Your task to perform on an android device: Search for logitech g910 on costco.com, select the first entry, add it to the cart, then select checkout. Image 0: 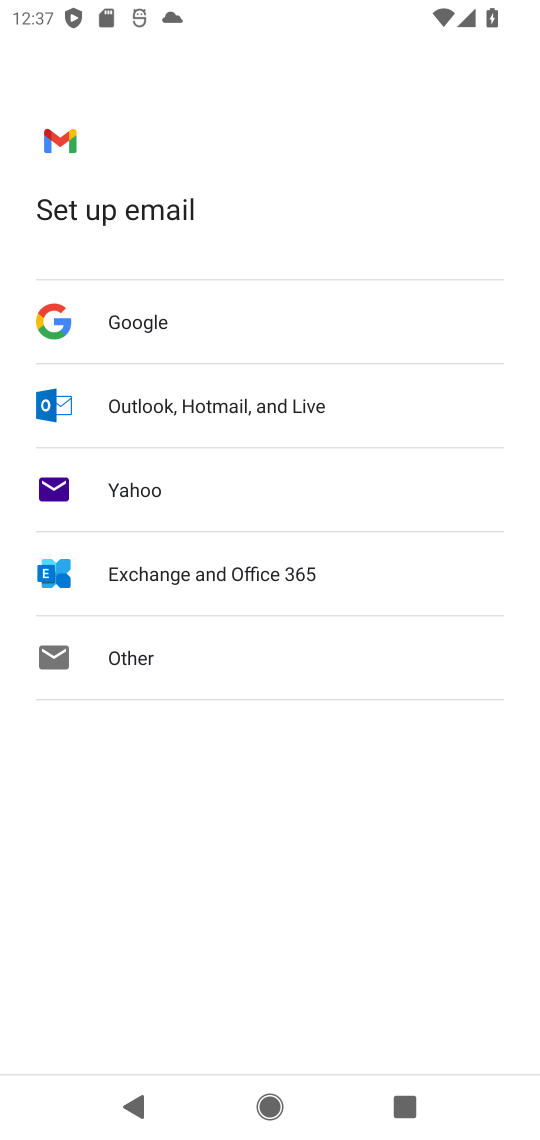
Step 0: press home button
Your task to perform on an android device: Search for logitech g910 on costco.com, select the first entry, add it to the cart, then select checkout. Image 1: 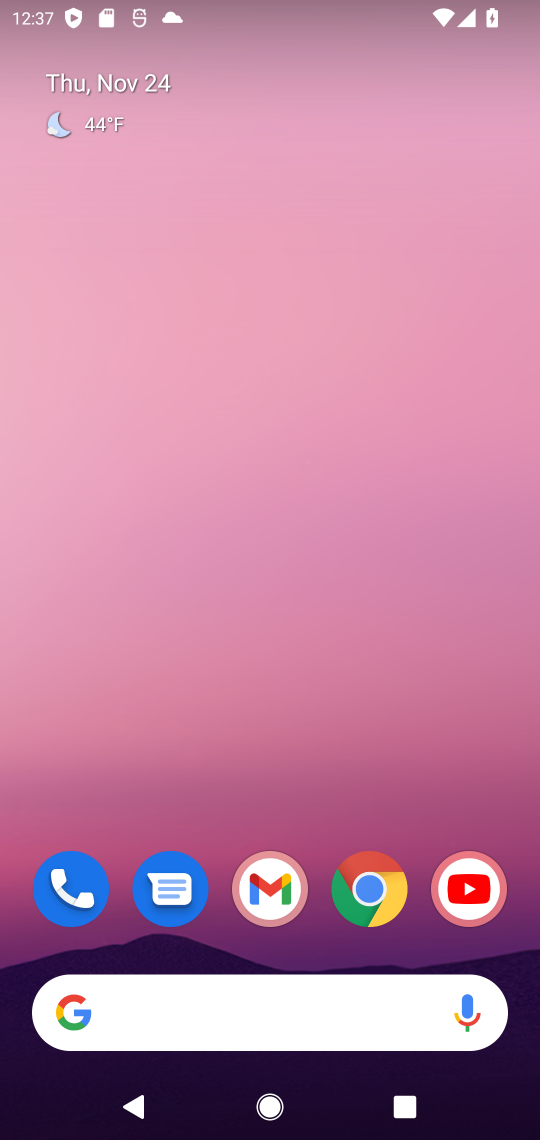
Step 1: click (377, 888)
Your task to perform on an android device: Search for logitech g910 on costco.com, select the first entry, add it to the cart, then select checkout. Image 2: 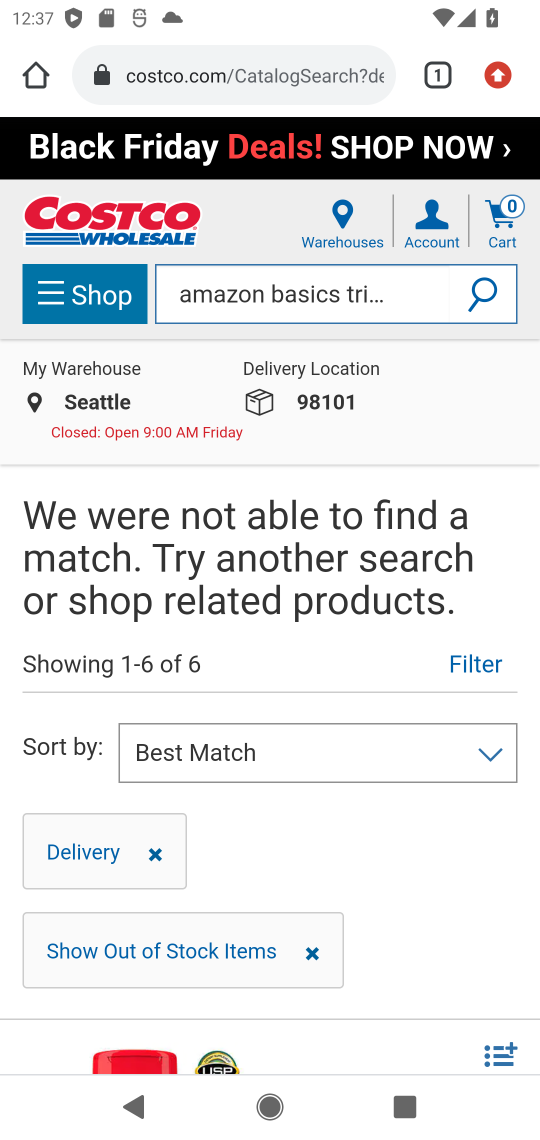
Step 2: click (359, 293)
Your task to perform on an android device: Search for logitech g910 on costco.com, select the first entry, add it to the cart, then select checkout. Image 3: 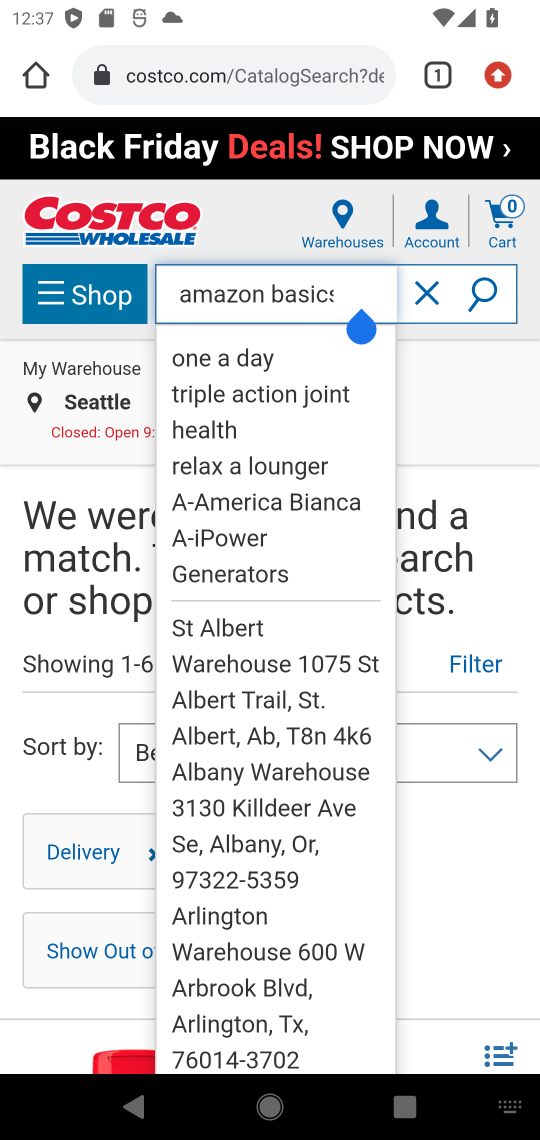
Step 3: click (425, 293)
Your task to perform on an android device: Search for logitech g910 on costco.com, select the first entry, add it to the cart, then select checkout. Image 4: 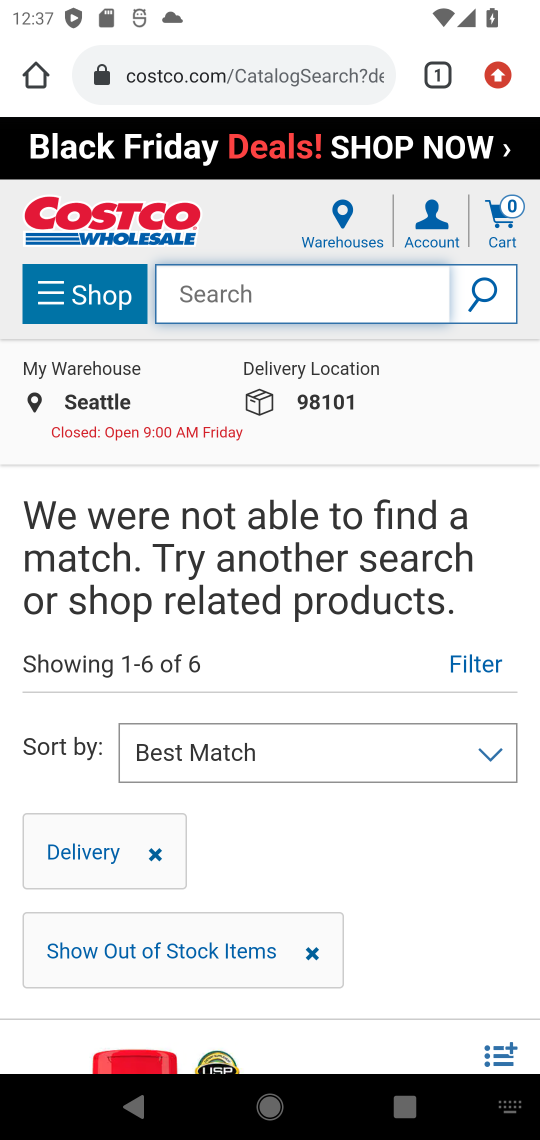
Step 4: type "logitech g910 "
Your task to perform on an android device: Search for logitech g910 on costco.com, select the first entry, add it to the cart, then select checkout. Image 5: 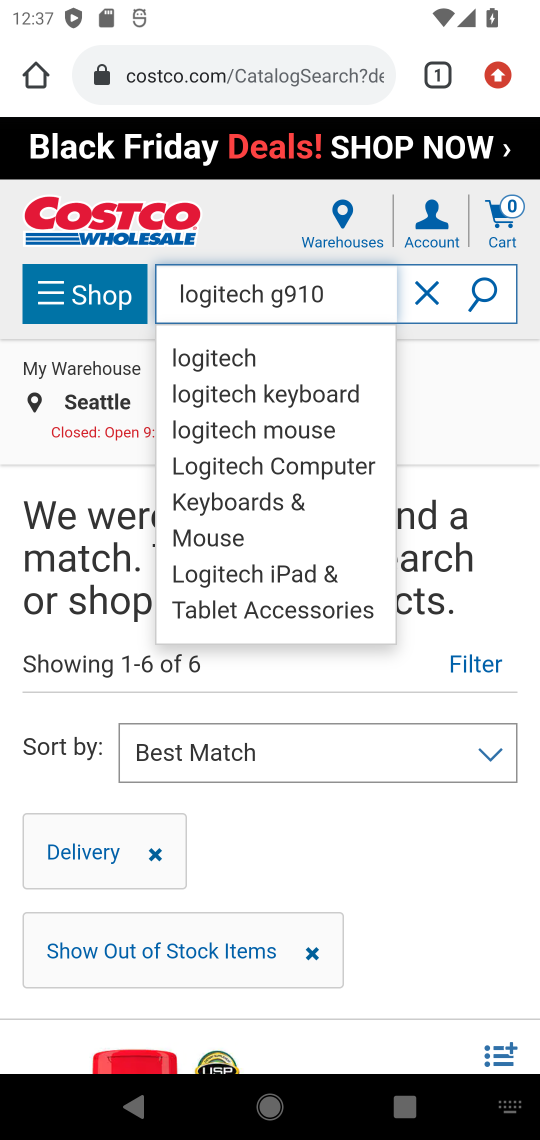
Step 5: click (492, 301)
Your task to perform on an android device: Search for logitech g910 on costco.com, select the first entry, add it to the cart, then select checkout. Image 6: 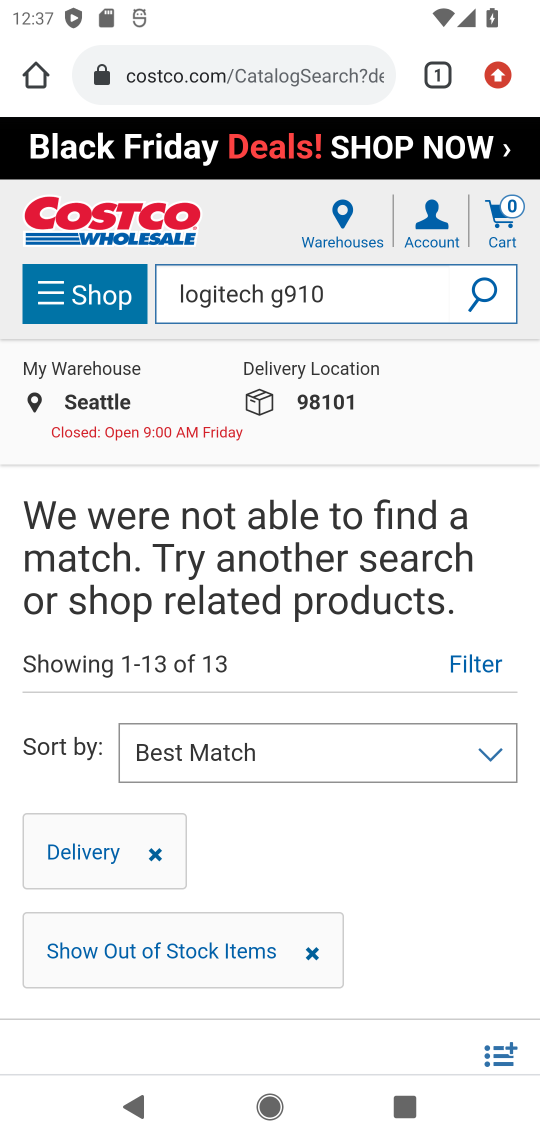
Step 6: task complete